Your task to perform on an android device: Is it going to rain tomorrow? Image 0: 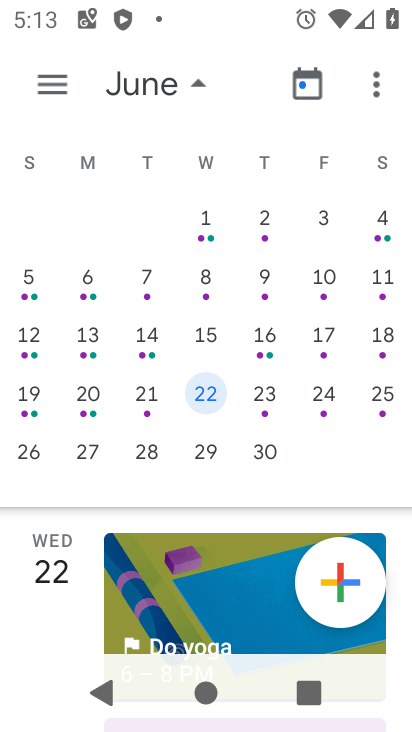
Step 0: press home button
Your task to perform on an android device: Is it going to rain tomorrow? Image 1: 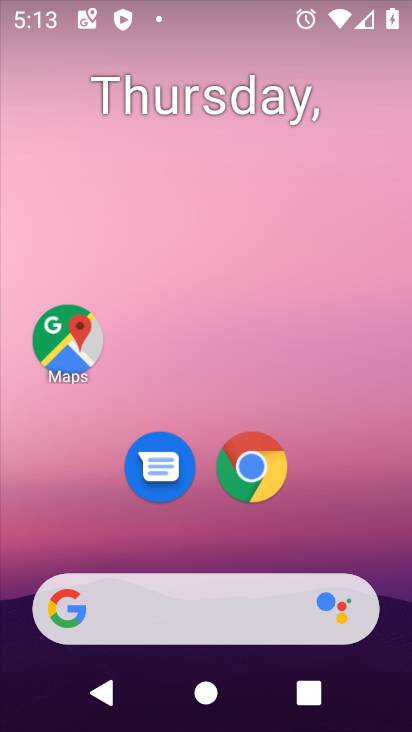
Step 1: click (259, 485)
Your task to perform on an android device: Is it going to rain tomorrow? Image 2: 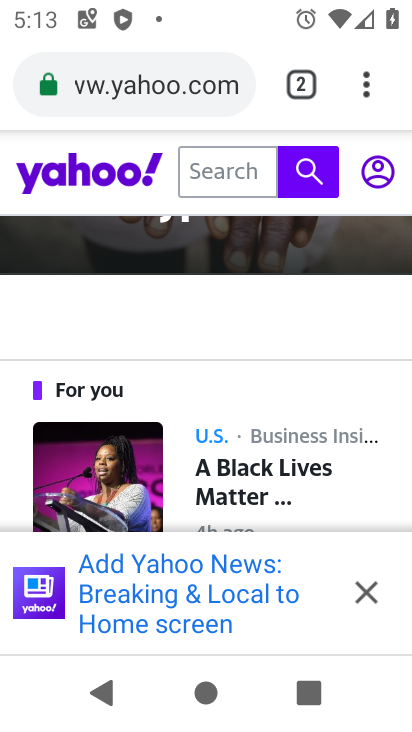
Step 2: click (150, 68)
Your task to perform on an android device: Is it going to rain tomorrow? Image 3: 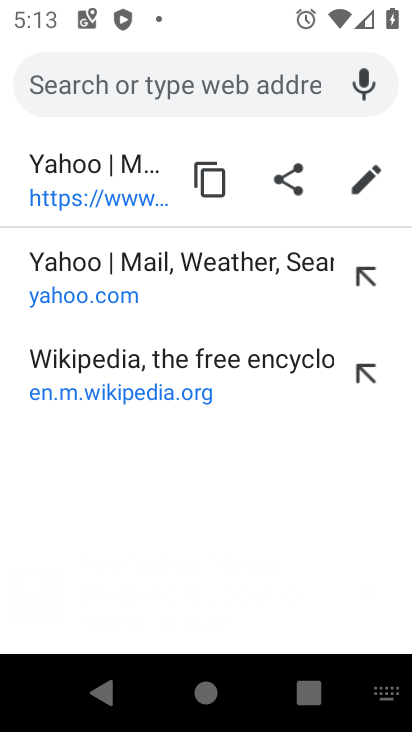
Step 3: type "Is it going to rain tomorrow?"
Your task to perform on an android device: Is it going to rain tomorrow? Image 4: 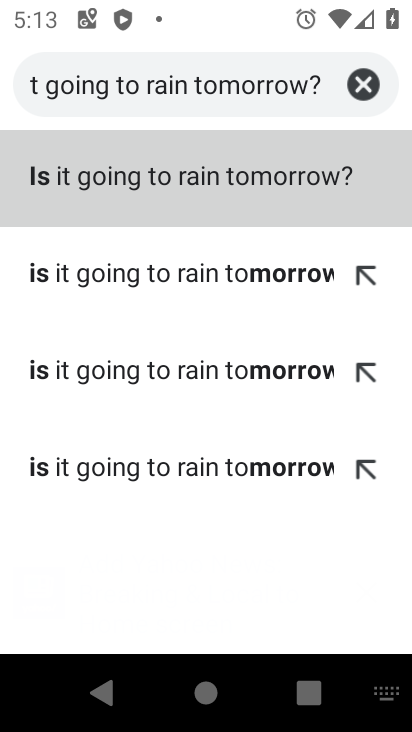
Step 4: click (157, 181)
Your task to perform on an android device: Is it going to rain tomorrow? Image 5: 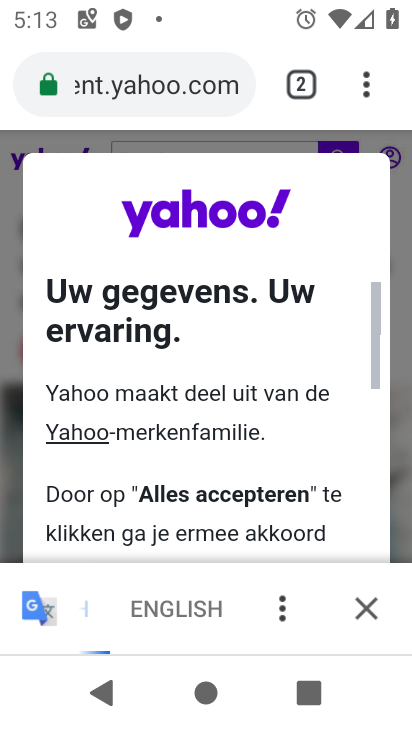
Step 5: click (373, 606)
Your task to perform on an android device: Is it going to rain tomorrow? Image 6: 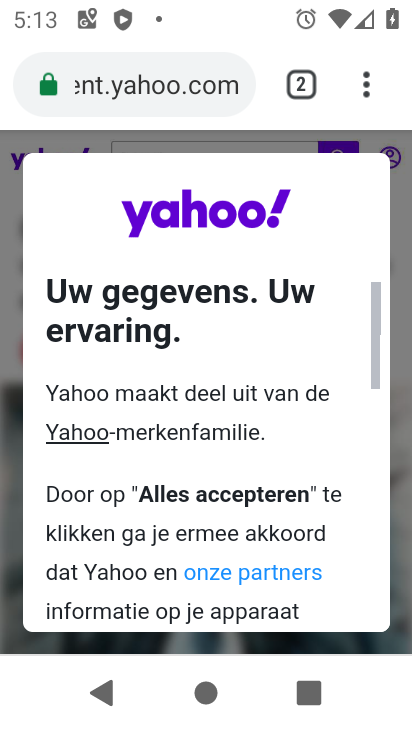
Step 6: drag from (336, 603) to (283, 160)
Your task to perform on an android device: Is it going to rain tomorrow? Image 7: 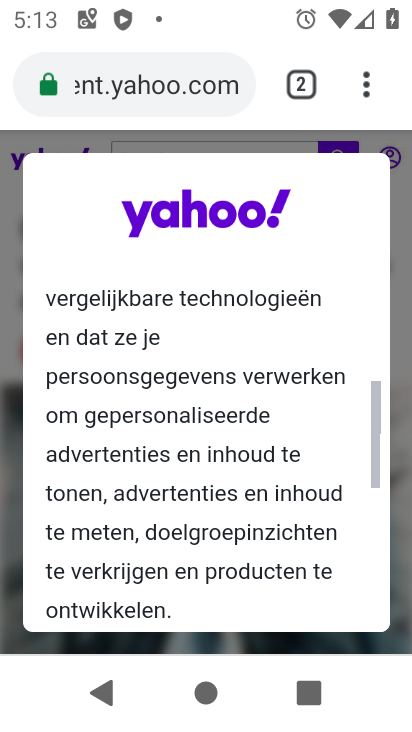
Step 7: drag from (229, 608) to (176, 166)
Your task to perform on an android device: Is it going to rain tomorrow? Image 8: 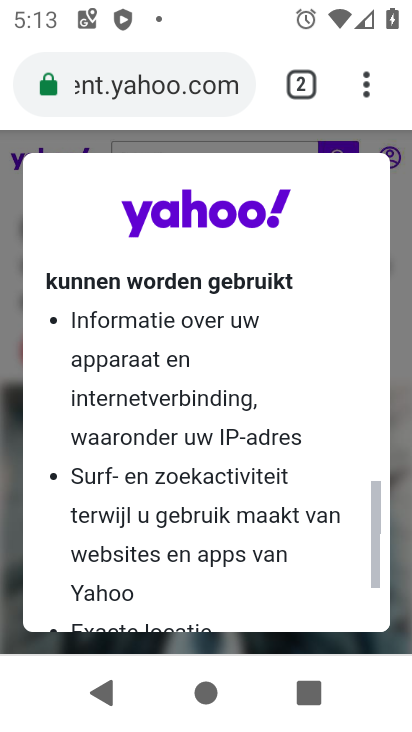
Step 8: drag from (201, 593) to (172, 183)
Your task to perform on an android device: Is it going to rain tomorrow? Image 9: 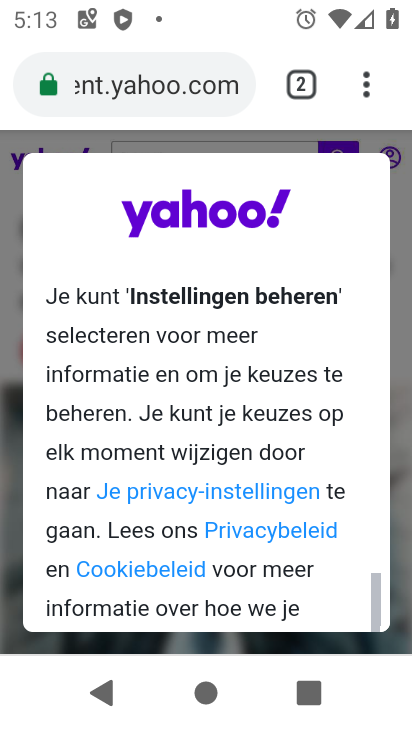
Step 9: drag from (214, 533) to (207, 237)
Your task to perform on an android device: Is it going to rain tomorrow? Image 10: 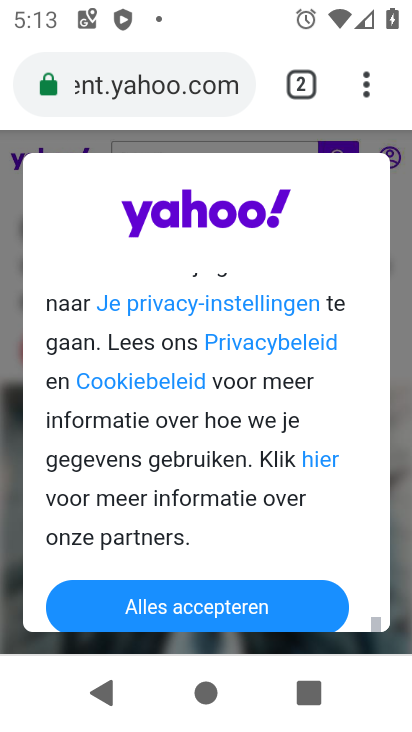
Step 10: click (178, 595)
Your task to perform on an android device: Is it going to rain tomorrow? Image 11: 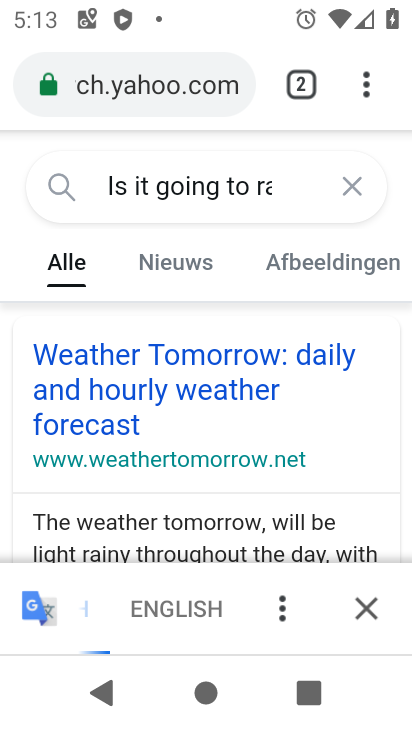
Step 11: click (379, 611)
Your task to perform on an android device: Is it going to rain tomorrow? Image 12: 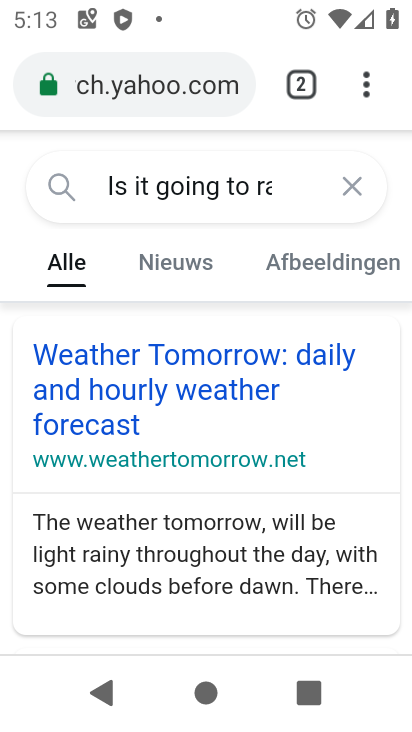
Step 12: click (302, 353)
Your task to perform on an android device: Is it going to rain tomorrow? Image 13: 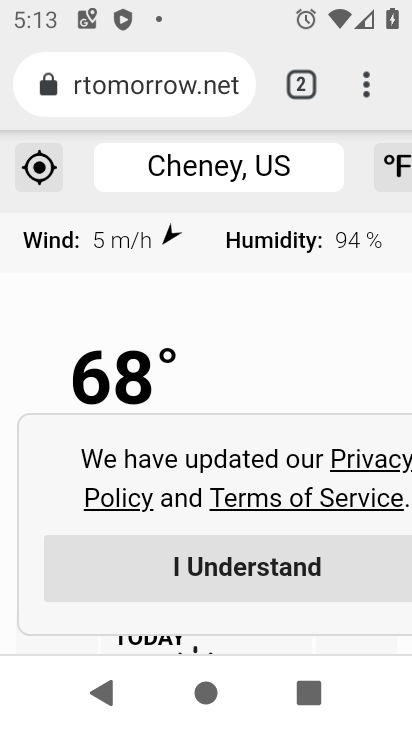
Step 13: task complete